Your task to perform on an android device: turn off location Image 0: 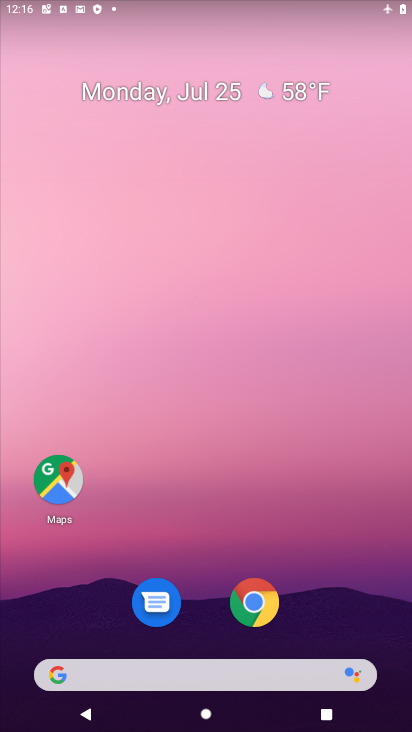
Step 0: drag from (207, 627) to (205, 103)
Your task to perform on an android device: turn off location Image 1: 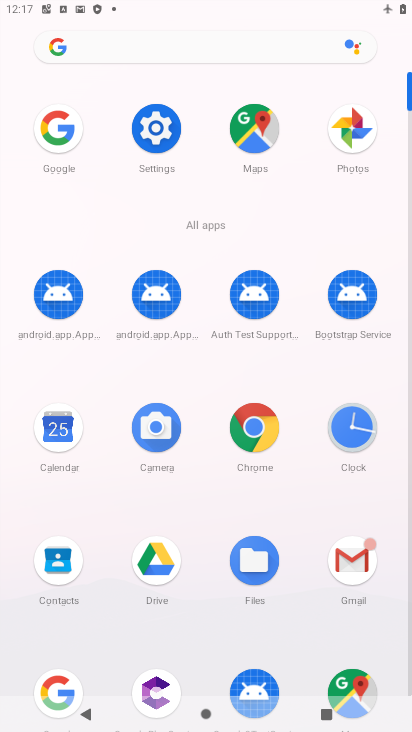
Step 1: click (131, 128)
Your task to perform on an android device: turn off location Image 2: 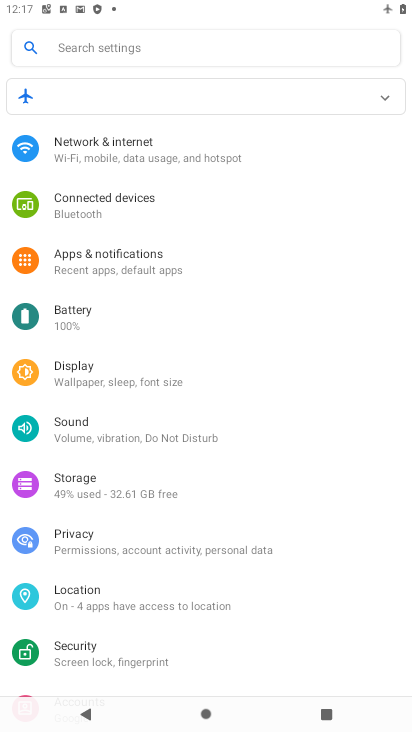
Step 2: click (114, 608)
Your task to perform on an android device: turn off location Image 3: 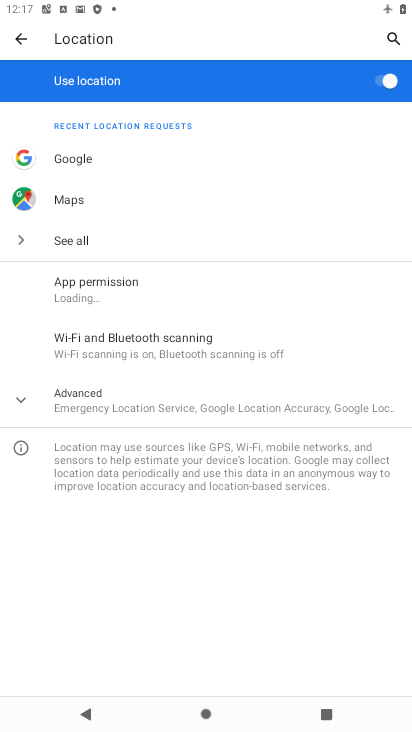
Step 3: click (388, 65)
Your task to perform on an android device: turn off location Image 4: 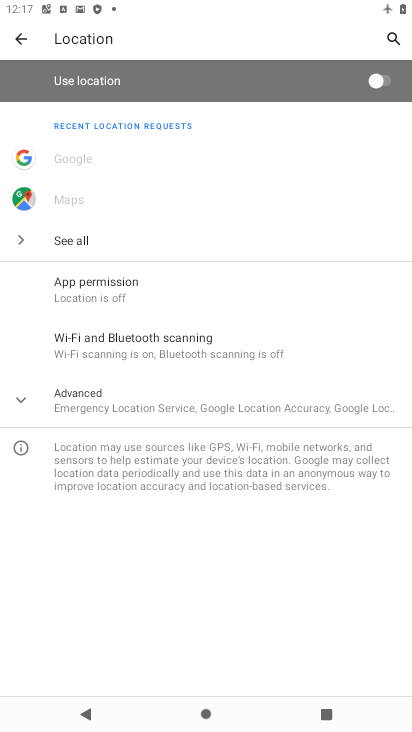
Step 4: task complete